Your task to perform on an android device: open wifi settings Image 0: 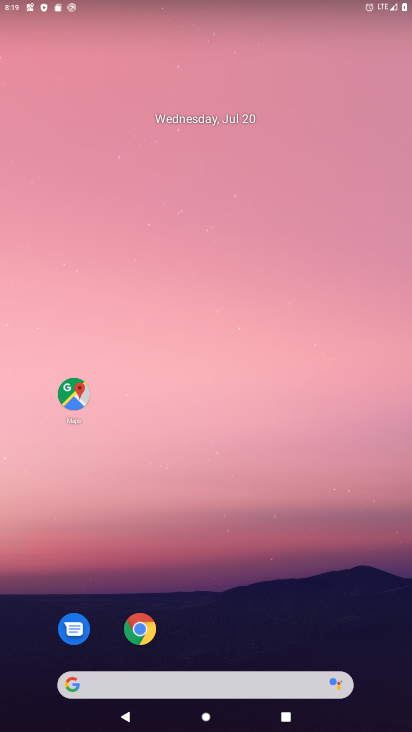
Step 0: drag from (181, 579) to (210, 22)
Your task to perform on an android device: open wifi settings Image 1: 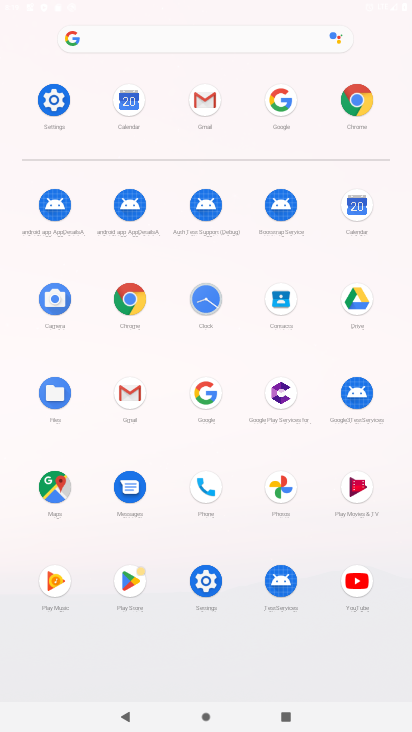
Step 1: click (54, 93)
Your task to perform on an android device: open wifi settings Image 2: 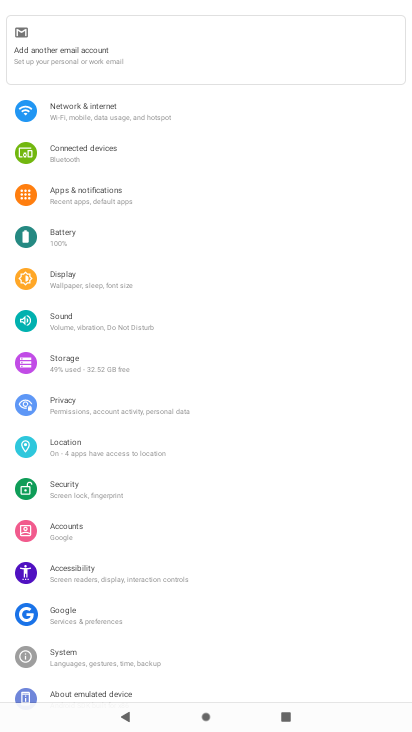
Step 2: click (96, 111)
Your task to perform on an android device: open wifi settings Image 3: 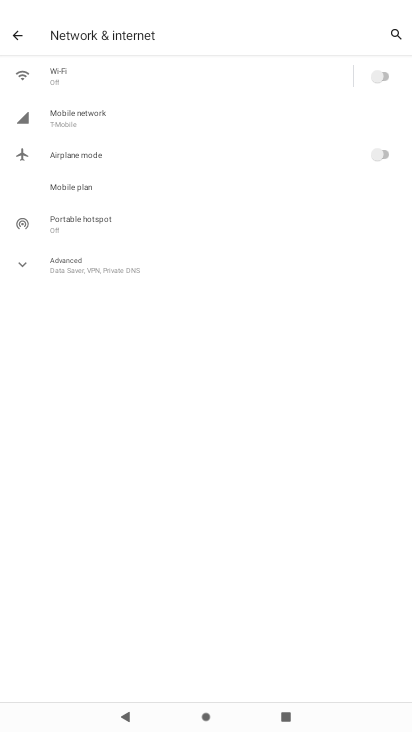
Step 3: click (151, 83)
Your task to perform on an android device: open wifi settings Image 4: 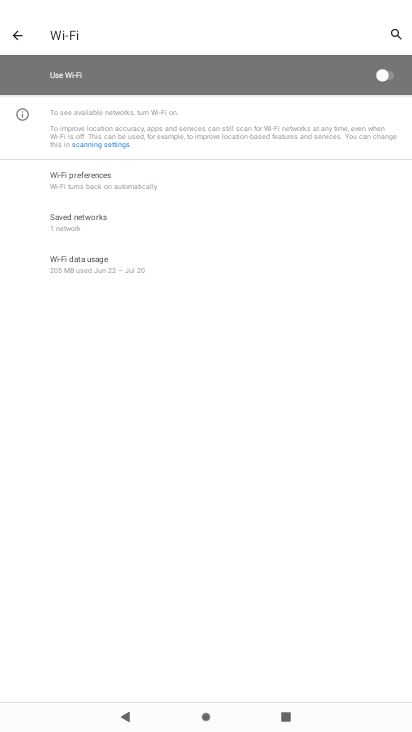
Step 4: task complete